Your task to perform on an android device: Open the calendar and show me this week's events? Image 0: 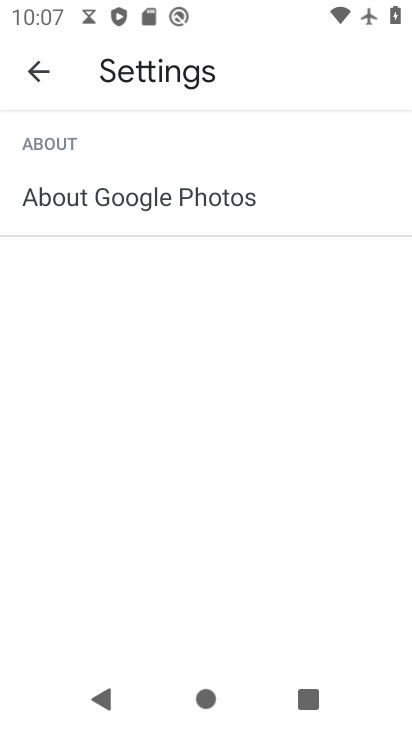
Step 0: press home button
Your task to perform on an android device: Open the calendar and show me this week's events? Image 1: 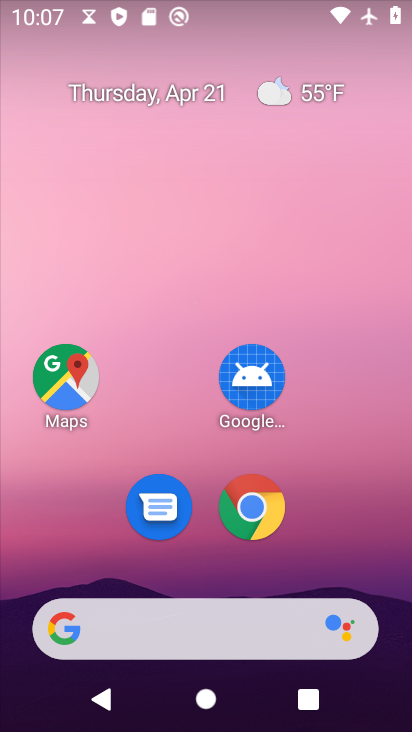
Step 1: drag from (319, 510) to (342, 245)
Your task to perform on an android device: Open the calendar and show me this week's events? Image 2: 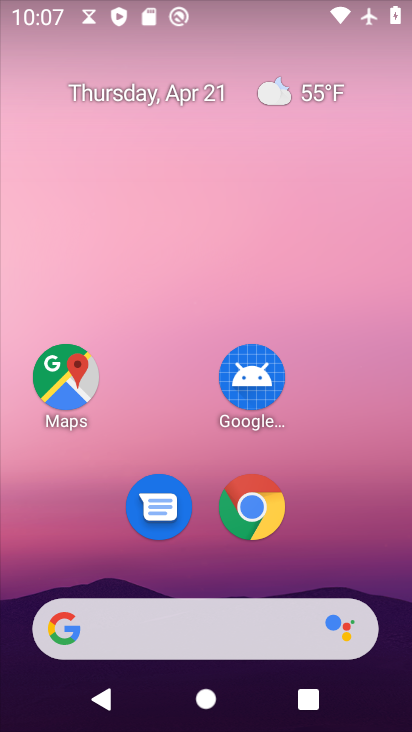
Step 2: drag from (299, 581) to (353, 251)
Your task to perform on an android device: Open the calendar and show me this week's events? Image 3: 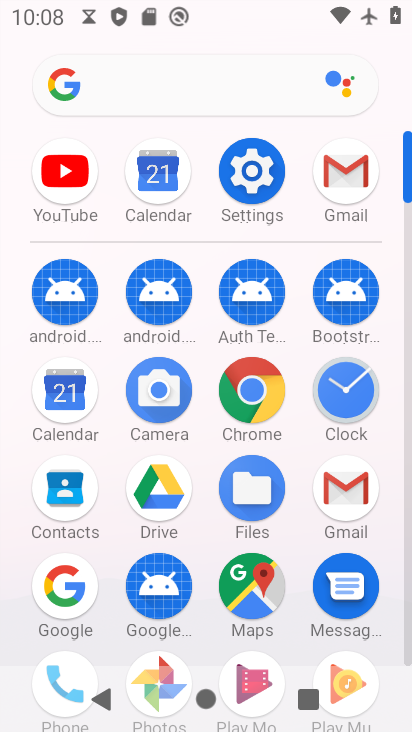
Step 3: click (80, 390)
Your task to perform on an android device: Open the calendar and show me this week's events? Image 4: 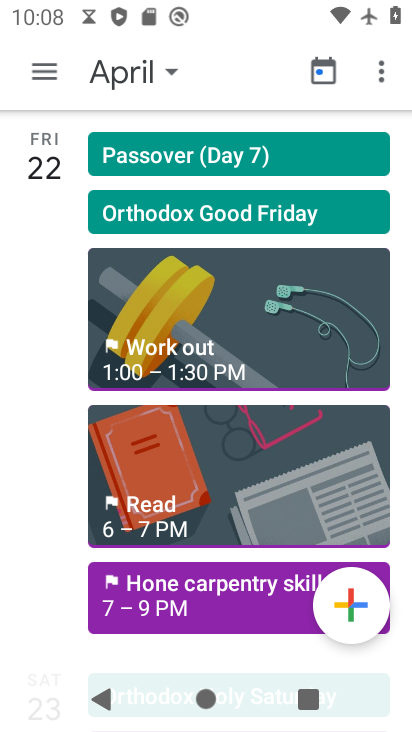
Step 4: drag from (157, 573) to (245, 124)
Your task to perform on an android device: Open the calendar and show me this week's events? Image 5: 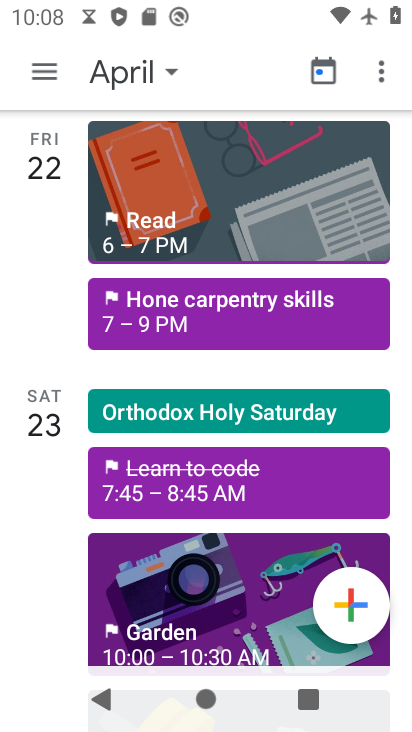
Step 5: drag from (150, 602) to (262, 227)
Your task to perform on an android device: Open the calendar and show me this week's events? Image 6: 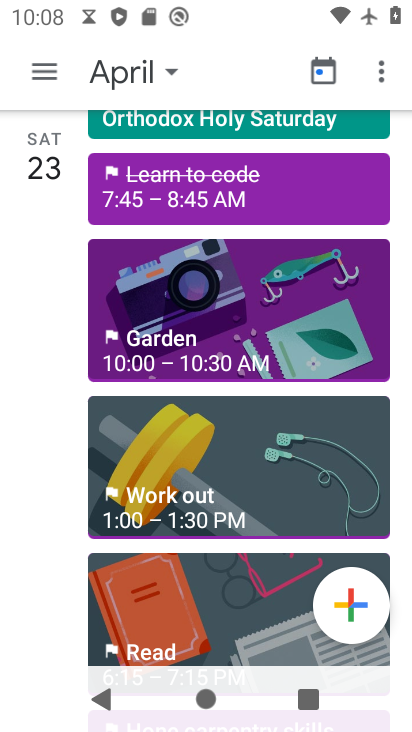
Step 6: click (212, 313)
Your task to perform on an android device: Open the calendar and show me this week's events? Image 7: 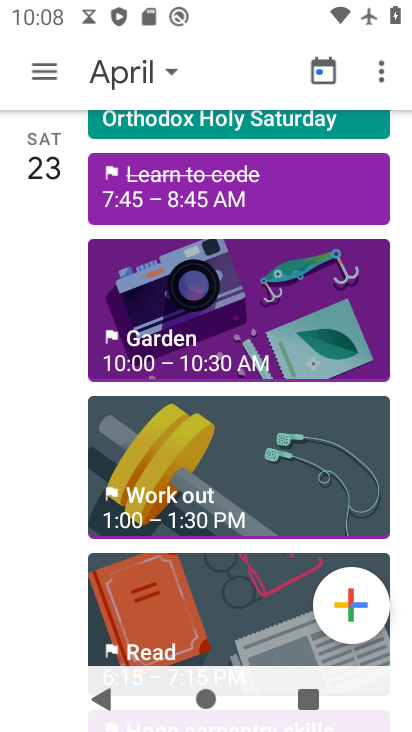
Step 7: click (186, 469)
Your task to perform on an android device: Open the calendar and show me this week's events? Image 8: 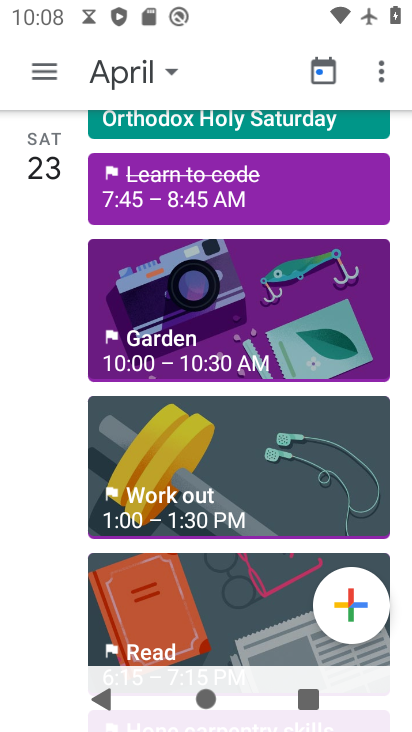
Step 8: click (186, 467)
Your task to perform on an android device: Open the calendar and show me this week's events? Image 9: 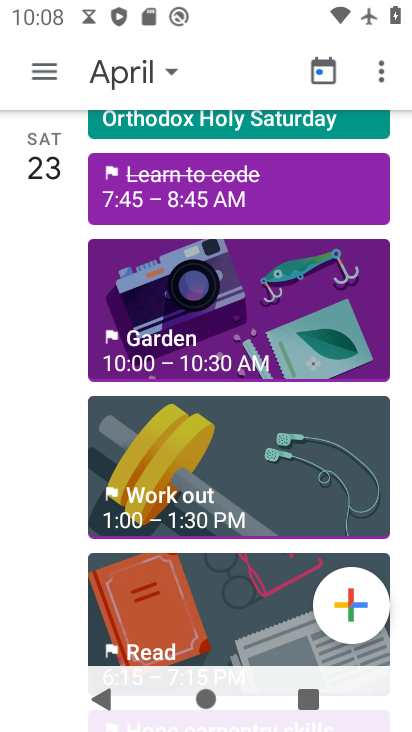
Step 9: task complete